Your task to perform on an android device: Open location settings Image 0: 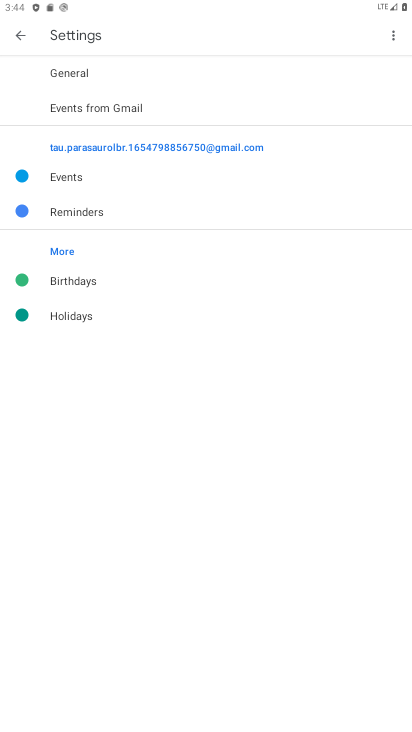
Step 0: press home button
Your task to perform on an android device: Open location settings Image 1: 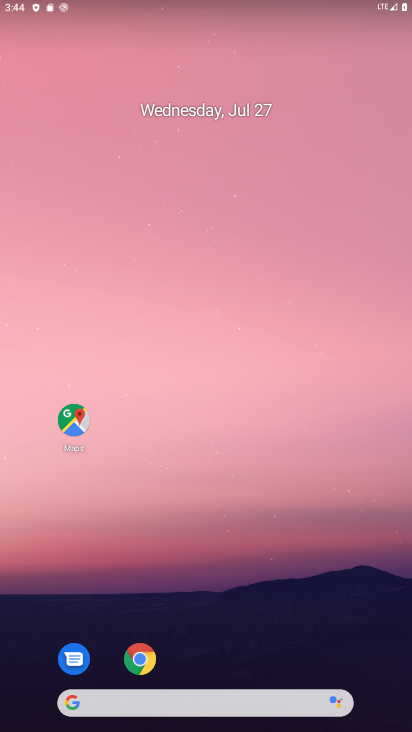
Step 1: drag from (235, 664) to (196, 63)
Your task to perform on an android device: Open location settings Image 2: 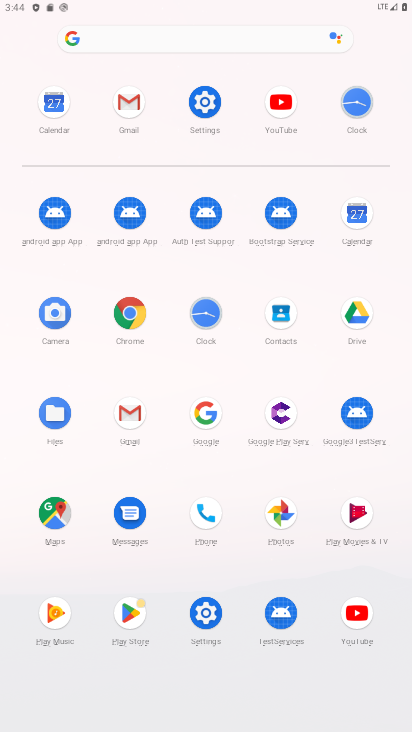
Step 2: click (205, 107)
Your task to perform on an android device: Open location settings Image 3: 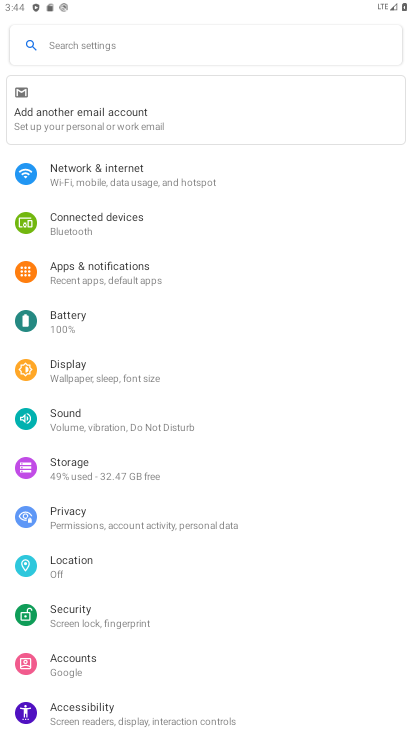
Step 3: click (61, 563)
Your task to perform on an android device: Open location settings Image 4: 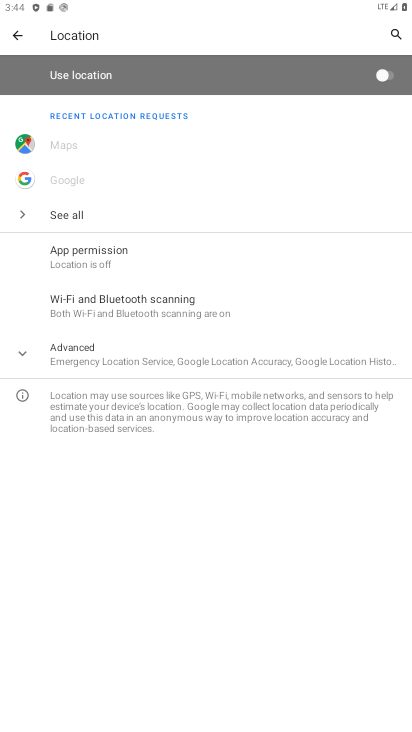
Step 4: task complete